Your task to perform on an android device: search for starred emails in the gmail app Image 0: 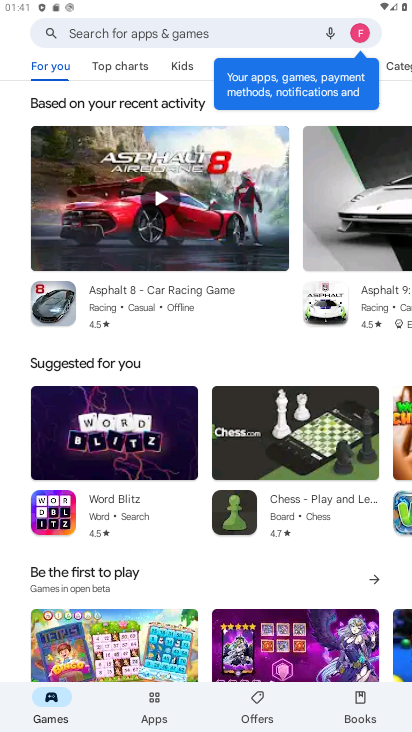
Step 0: press home button
Your task to perform on an android device: search for starred emails in the gmail app Image 1: 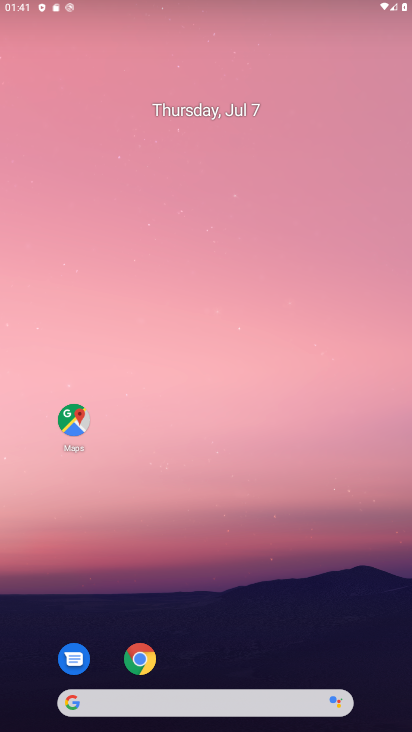
Step 1: drag from (226, 660) to (230, 143)
Your task to perform on an android device: search for starred emails in the gmail app Image 2: 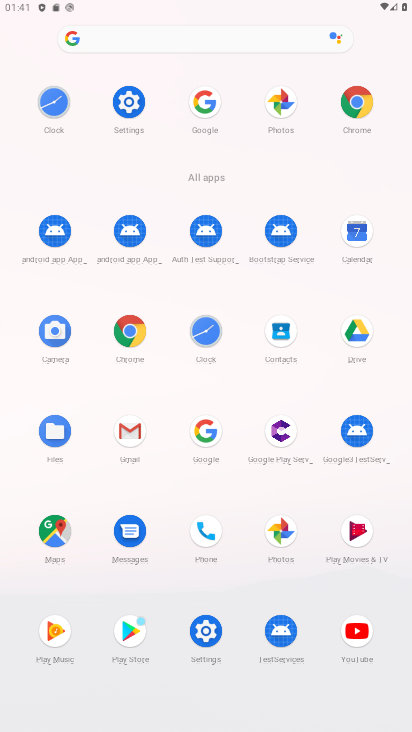
Step 2: click (131, 427)
Your task to perform on an android device: search for starred emails in the gmail app Image 3: 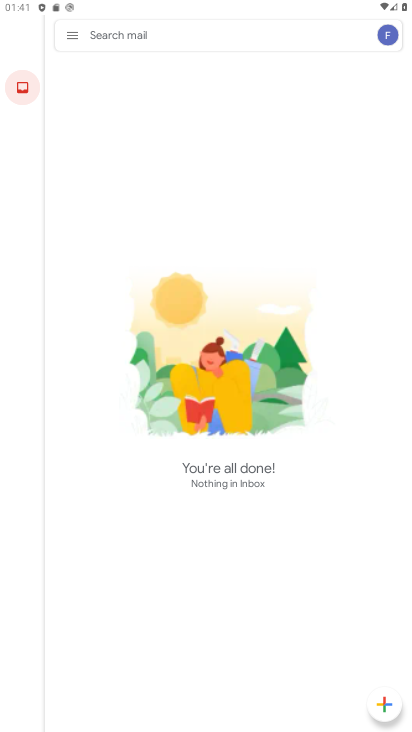
Step 3: click (66, 34)
Your task to perform on an android device: search for starred emails in the gmail app Image 4: 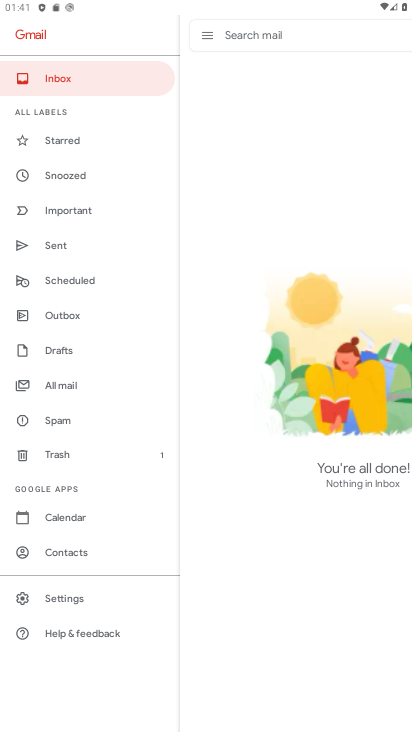
Step 4: click (66, 139)
Your task to perform on an android device: search for starred emails in the gmail app Image 5: 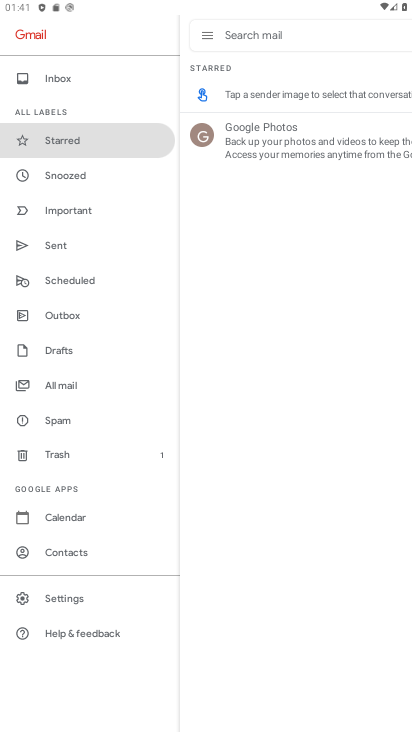
Step 5: task complete